Your task to perform on an android device: Do I have any events today? Image 0: 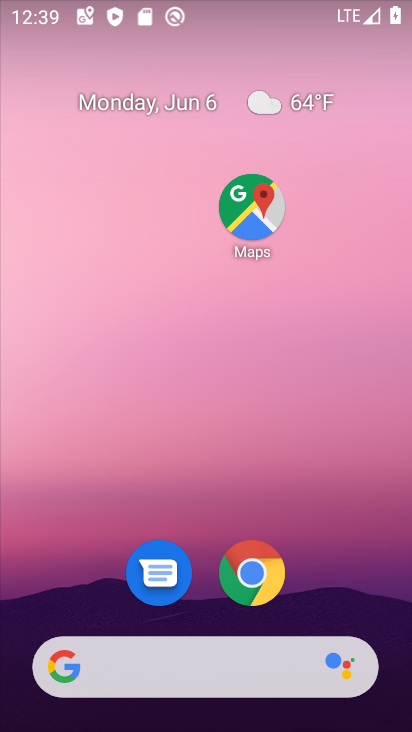
Step 0: drag from (183, 500) to (168, 139)
Your task to perform on an android device: Do I have any events today? Image 1: 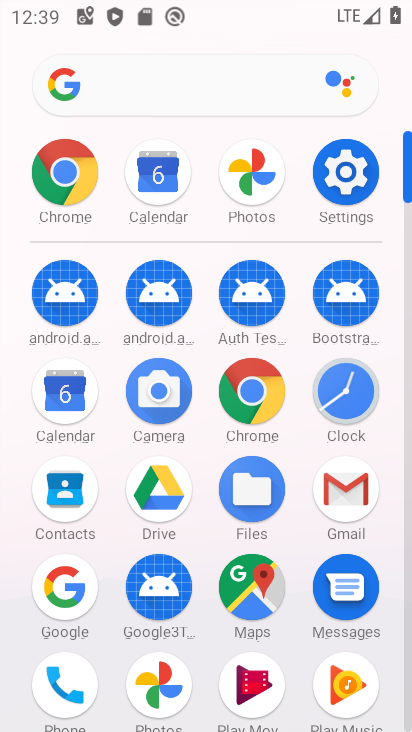
Step 1: click (73, 420)
Your task to perform on an android device: Do I have any events today? Image 2: 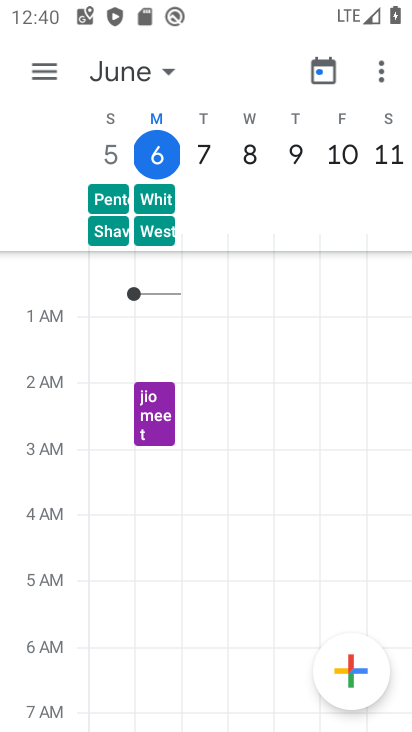
Step 2: click (151, 170)
Your task to perform on an android device: Do I have any events today? Image 3: 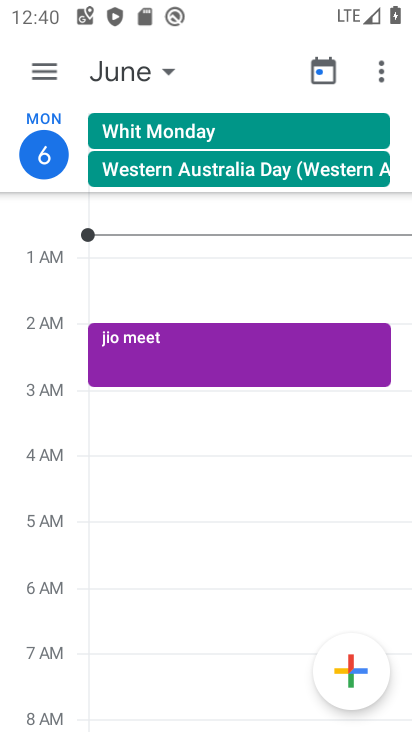
Step 3: task complete